Your task to perform on an android device: turn pop-ups on in chrome Image 0: 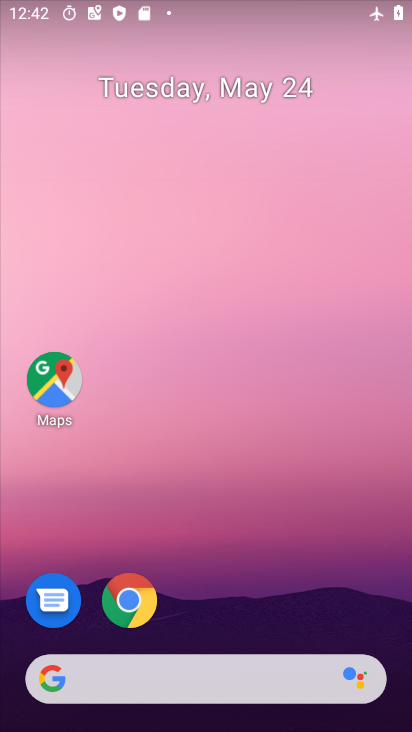
Step 0: click (131, 607)
Your task to perform on an android device: turn pop-ups on in chrome Image 1: 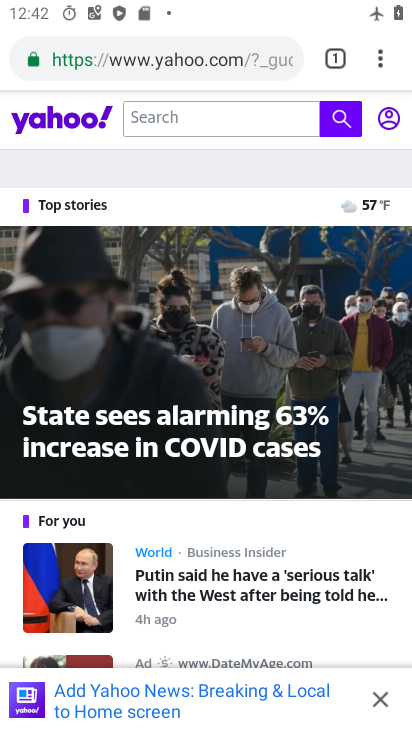
Step 1: click (384, 49)
Your task to perform on an android device: turn pop-ups on in chrome Image 2: 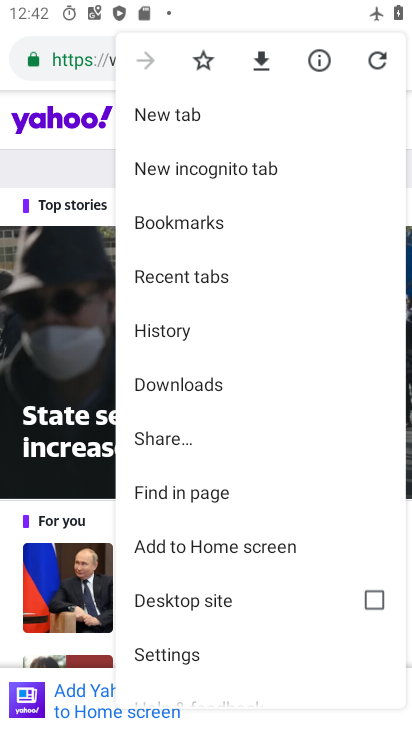
Step 2: click (199, 657)
Your task to perform on an android device: turn pop-ups on in chrome Image 3: 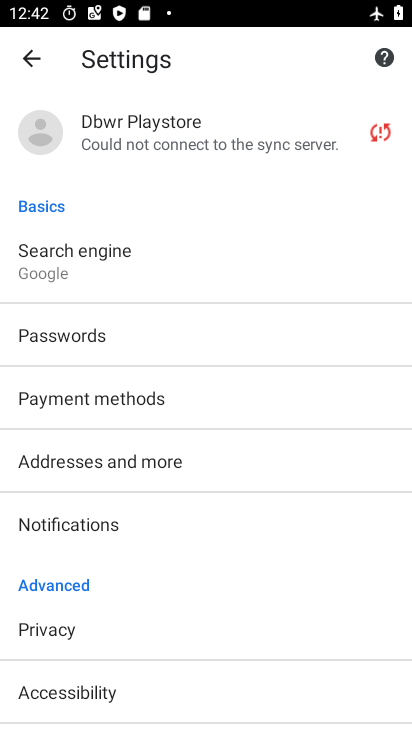
Step 3: drag from (106, 605) to (152, 193)
Your task to perform on an android device: turn pop-ups on in chrome Image 4: 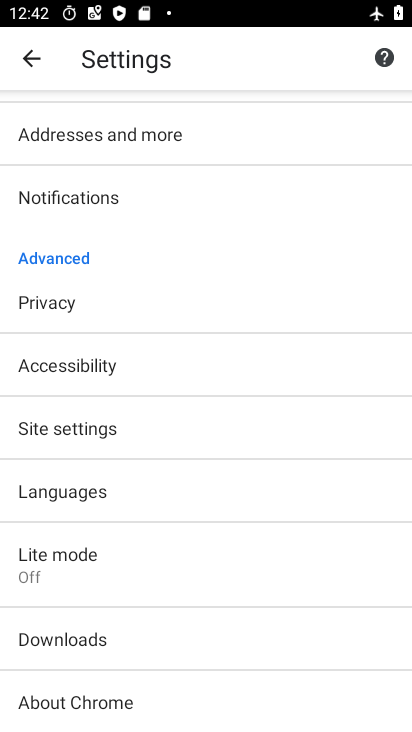
Step 4: click (105, 432)
Your task to perform on an android device: turn pop-ups on in chrome Image 5: 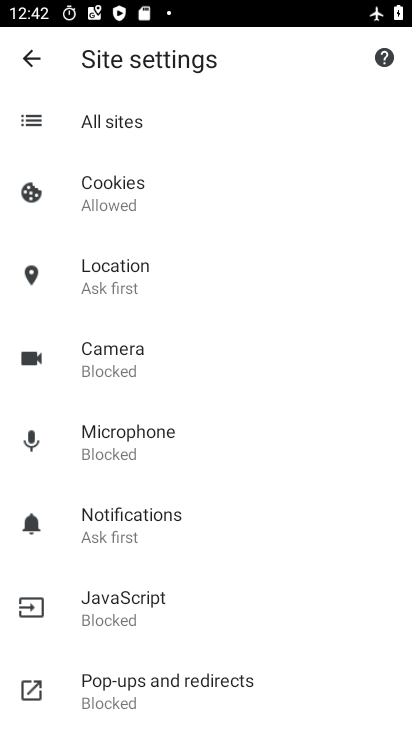
Step 5: click (165, 669)
Your task to perform on an android device: turn pop-ups on in chrome Image 6: 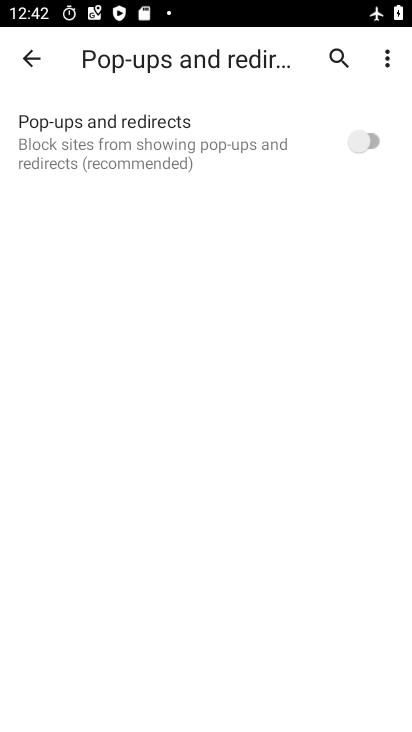
Step 6: click (351, 131)
Your task to perform on an android device: turn pop-ups on in chrome Image 7: 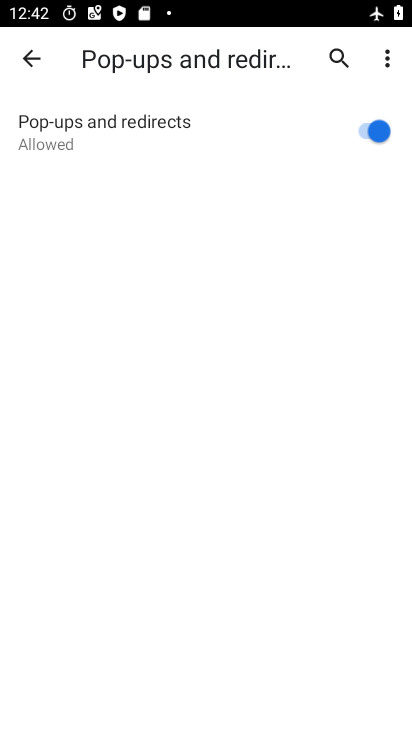
Step 7: task complete